Your task to perform on an android device: Show the shopping cart on bestbuy. Search for "bose soundsport free" on bestbuy, select the first entry, and add it to the cart. Image 0: 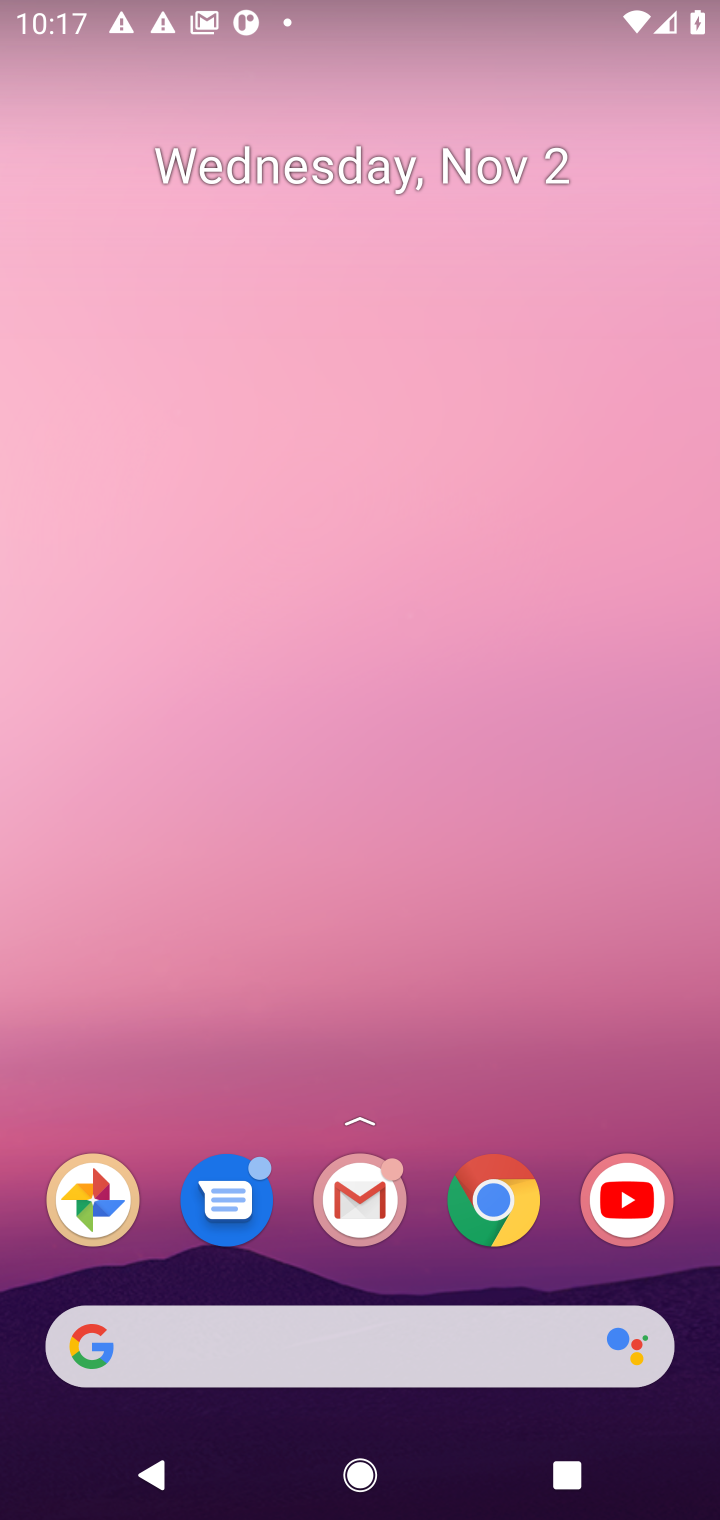
Step 0: click (463, 1193)
Your task to perform on an android device: Show the shopping cart on bestbuy. Search for "bose soundsport free" on bestbuy, select the first entry, and add it to the cart. Image 1: 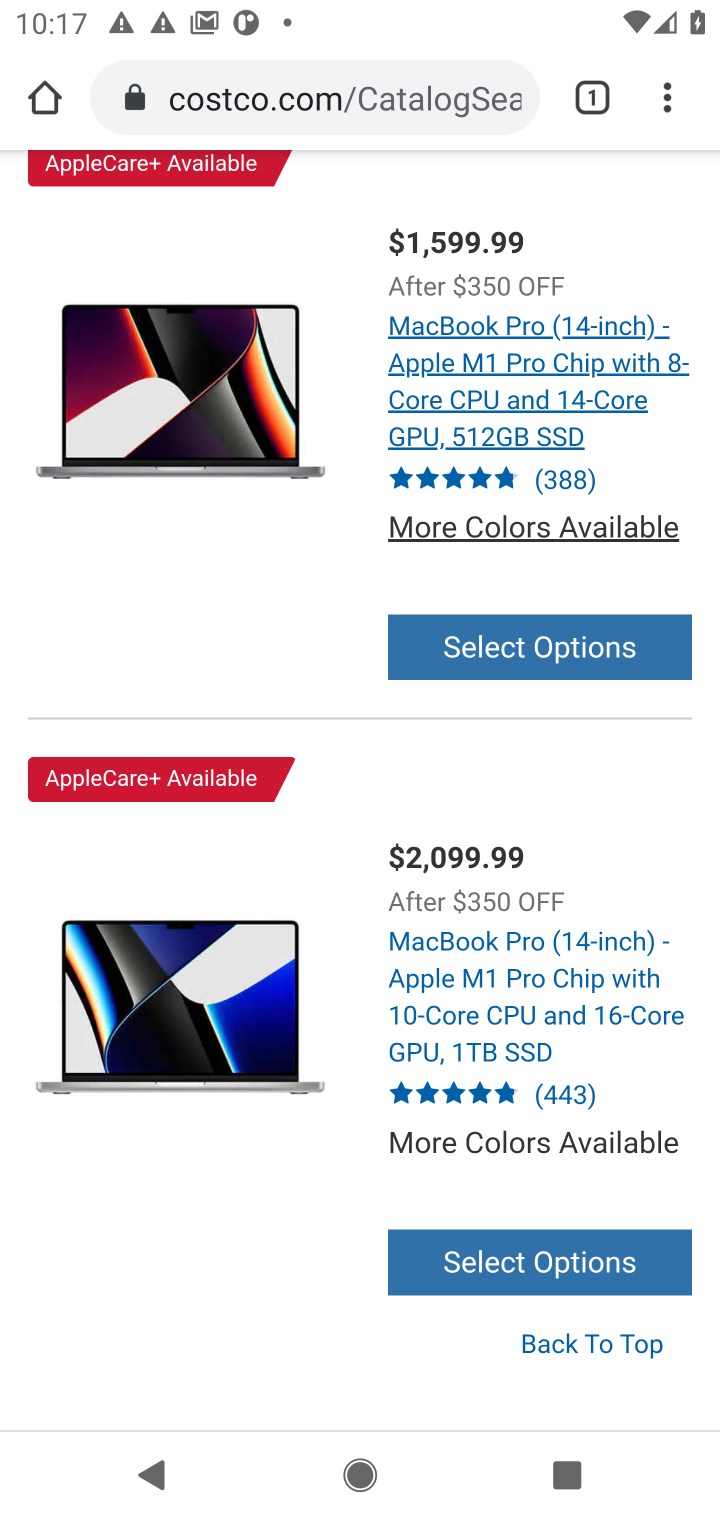
Step 1: click (398, 94)
Your task to perform on an android device: Show the shopping cart on bestbuy. Search for "bose soundsport free" on bestbuy, select the first entry, and add it to the cart. Image 2: 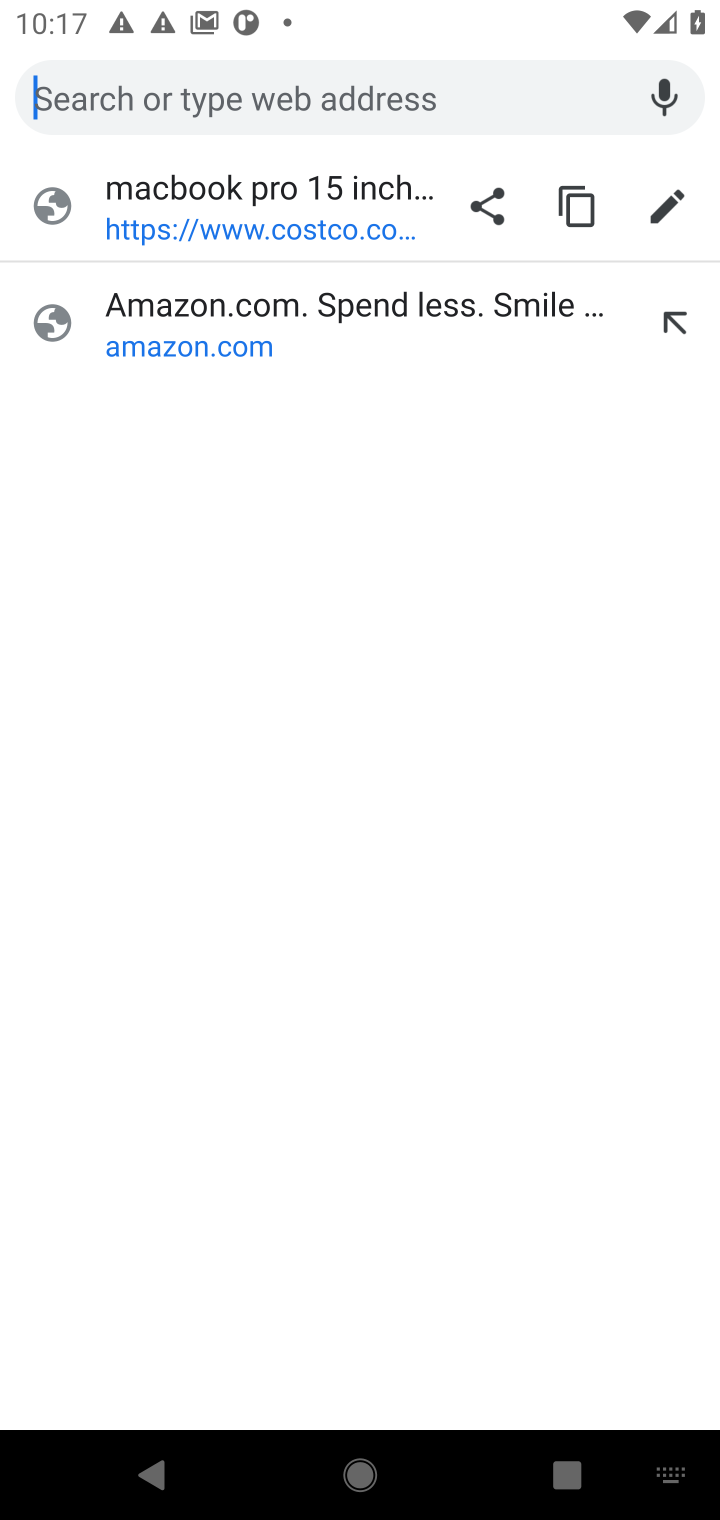
Step 2: type "bestbuy"
Your task to perform on an android device: Show the shopping cart on bestbuy. Search for "bose soundsport free" on bestbuy, select the first entry, and add it to the cart. Image 3: 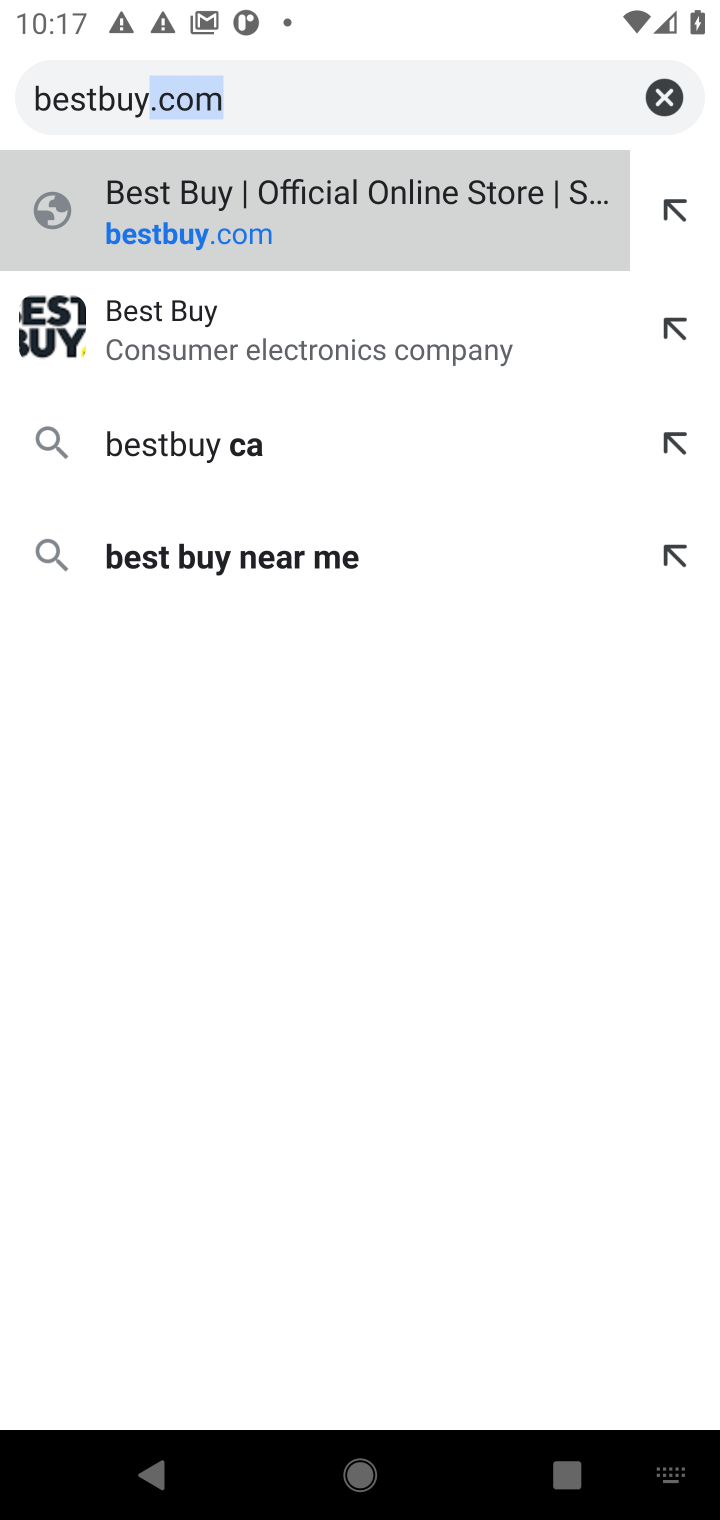
Step 3: press enter
Your task to perform on an android device: Show the shopping cart on bestbuy. Search for "bose soundsport free" on bestbuy, select the first entry, and add it to the cart. Image 4: 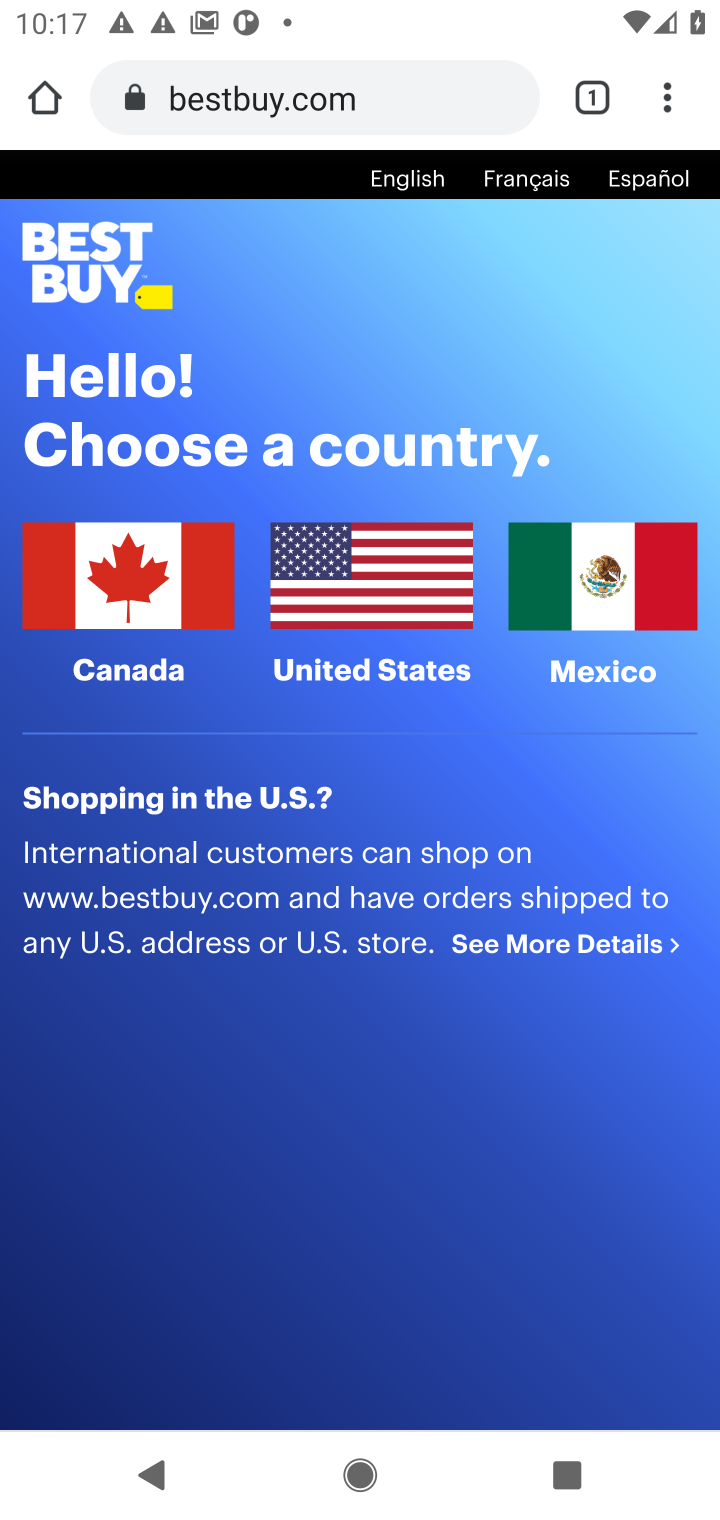
Step 4: click (408, 547)
Your task to perform on an android device: Show the shopping cart on bestbuy. Search for "bose soundsport free" on bestbuy, select the first entry, and add it to the cart. Image 5: 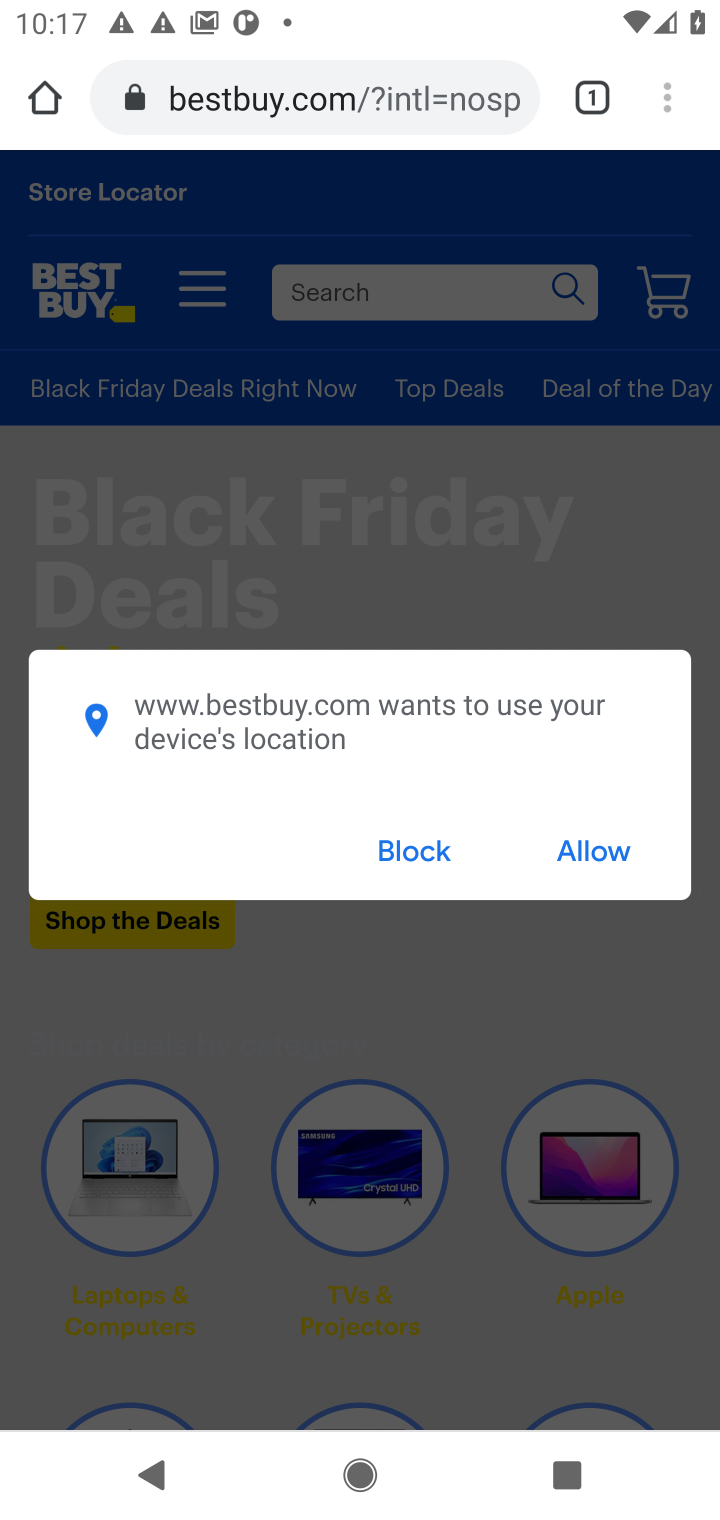
Step 5: click (449, 298)
Your task to perform on an android device: Show the shopping cart on bestbuy. Search for "bose soundsport free" on bestbuy, select the first entry, and add it to the cart. Image 6: 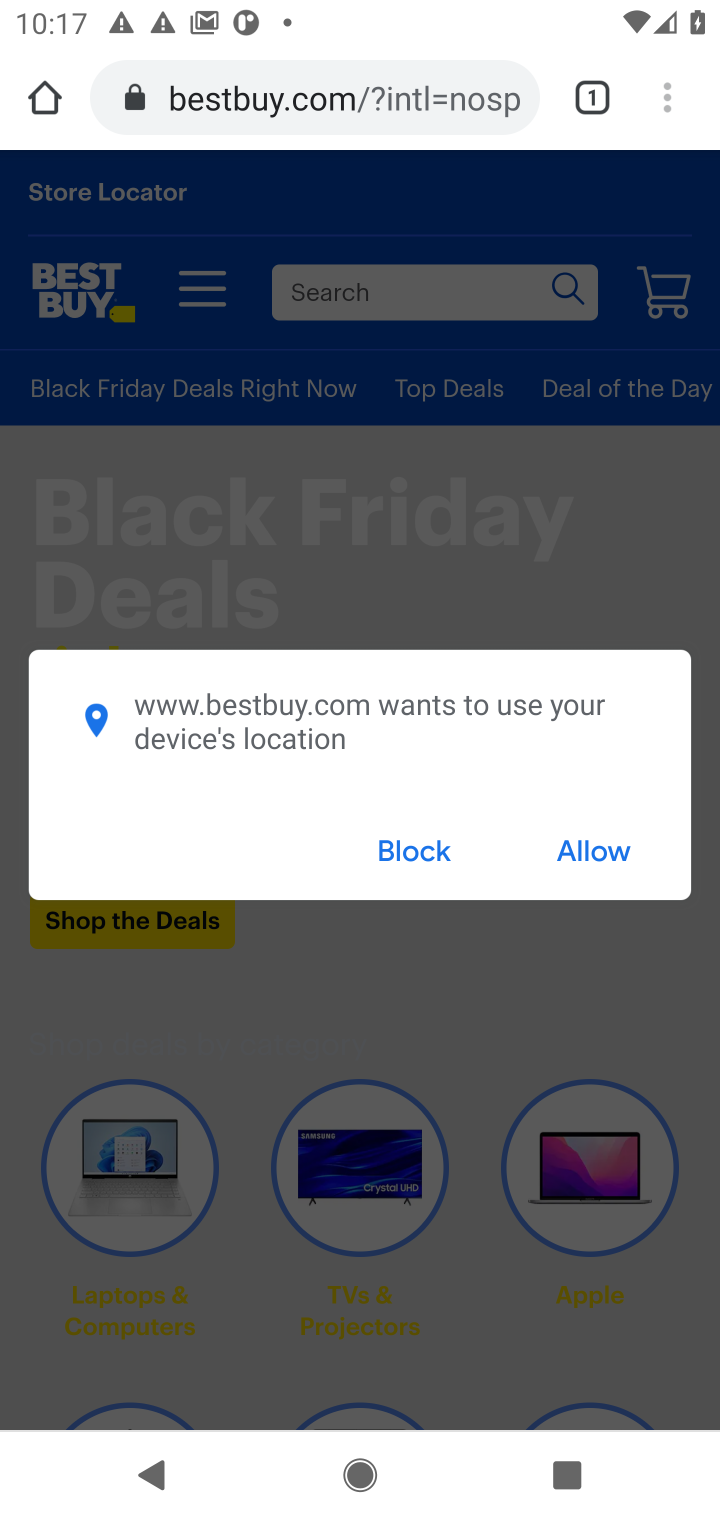
Step 6: click (446, 852)
Your task to perform on an android device: Show the shopping cart on bestbuy. Search for "bose soundsport free" on bestbuy, select the first entry, and add it to the cart. Image 7: 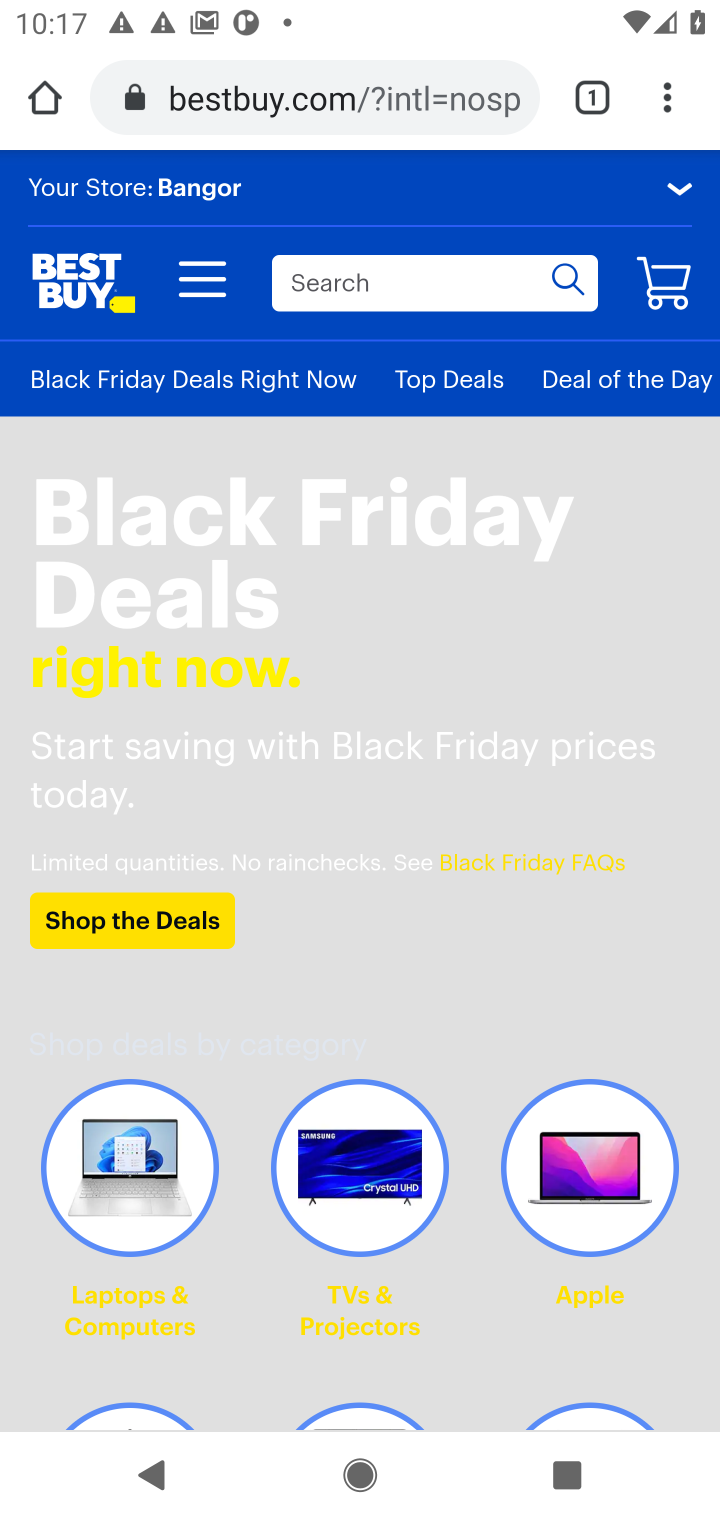
Step 7: click (477, 282)
Your task to perform on an android device: Show the shopping cart on bestbuy. Search for "bose soundsport free" on bestbuy, select the first entry, and add it to the cart. Image 8: 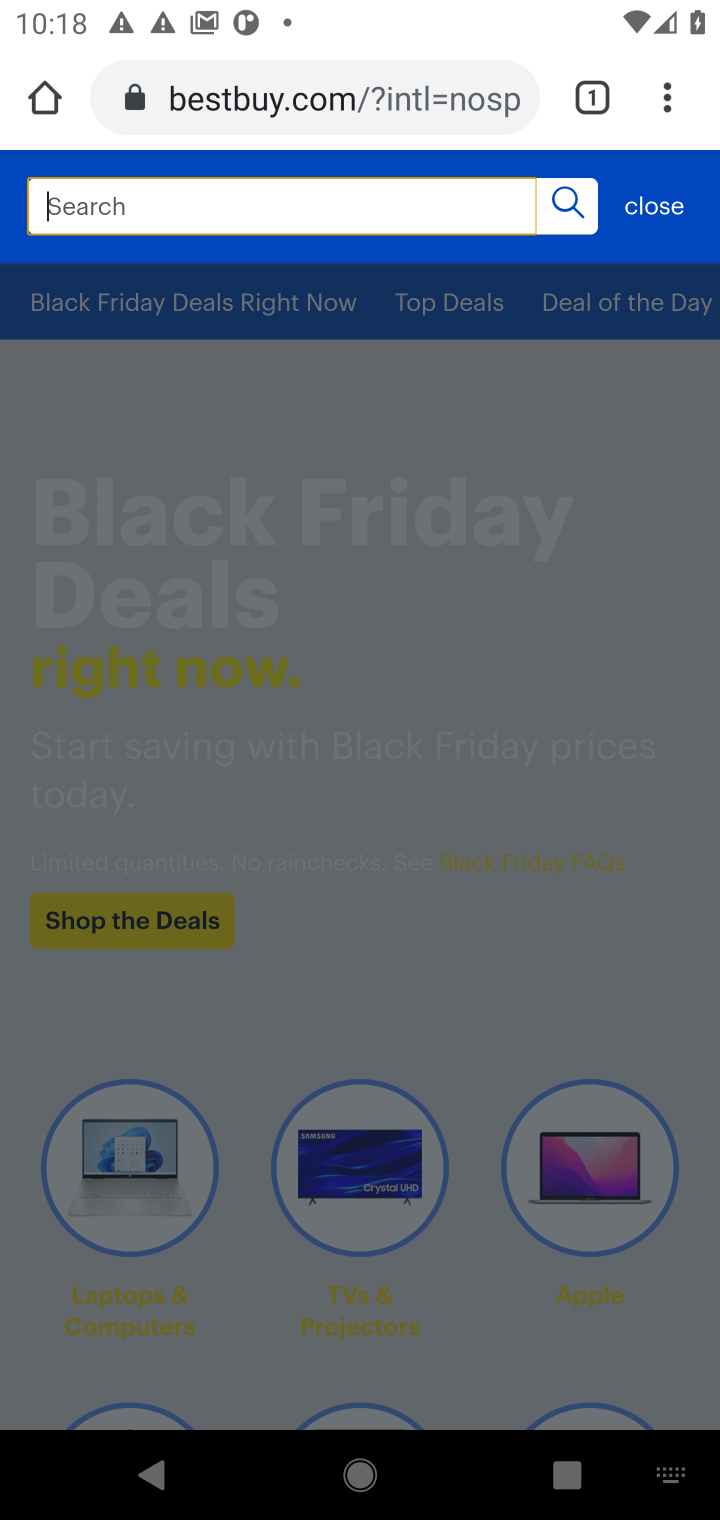
Step 8: type "bose soundsport free"
Your task to perform on an android device: Show the shopping cart on bestbuy. Search for "bose soundsport free" on bestbuy, select the first entry, and add it to the cart. Image 9: 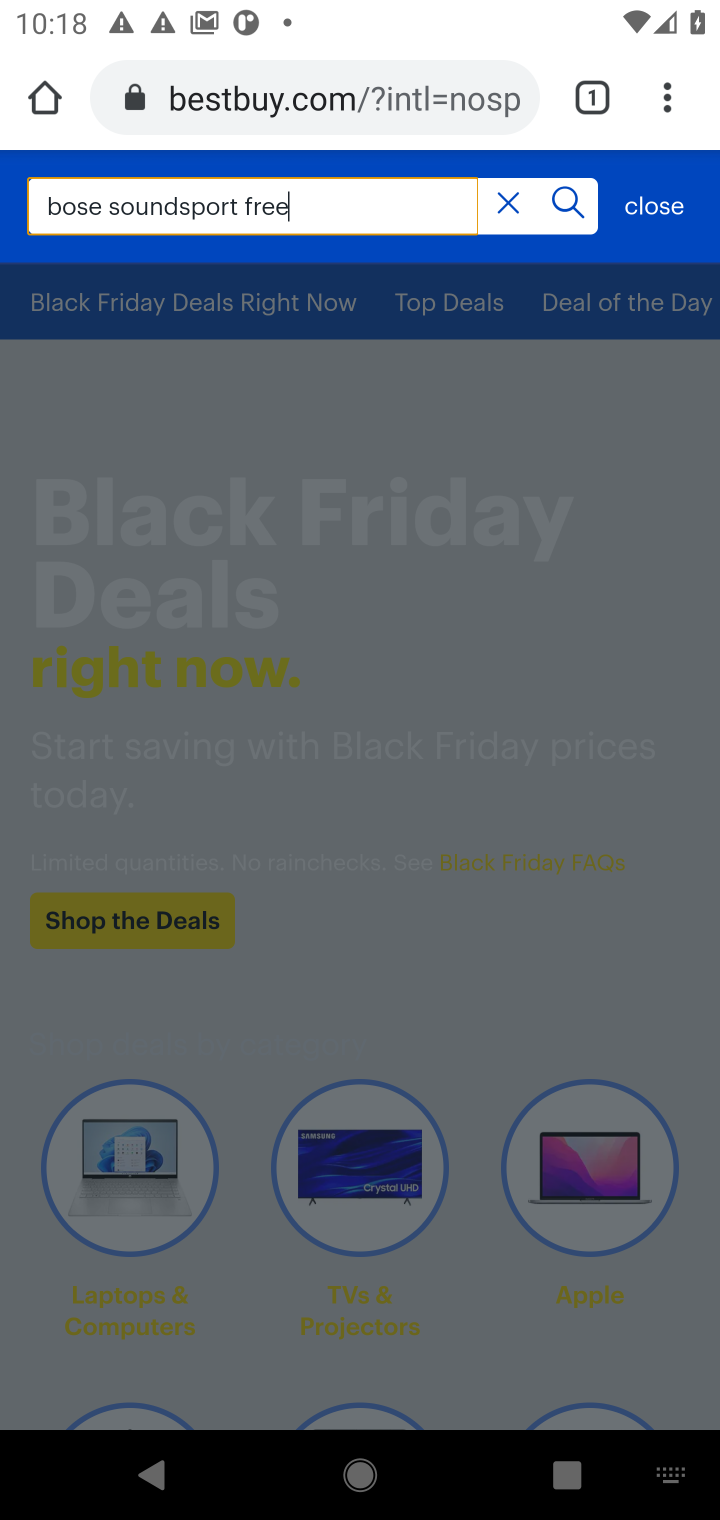
Step 9: press enter
Your task to perform on an android device: Show the shopping cart on bestbuy. Search for "bose soundsport free" on bestbuy, select the first entry, and add it to the cart. Image 10: 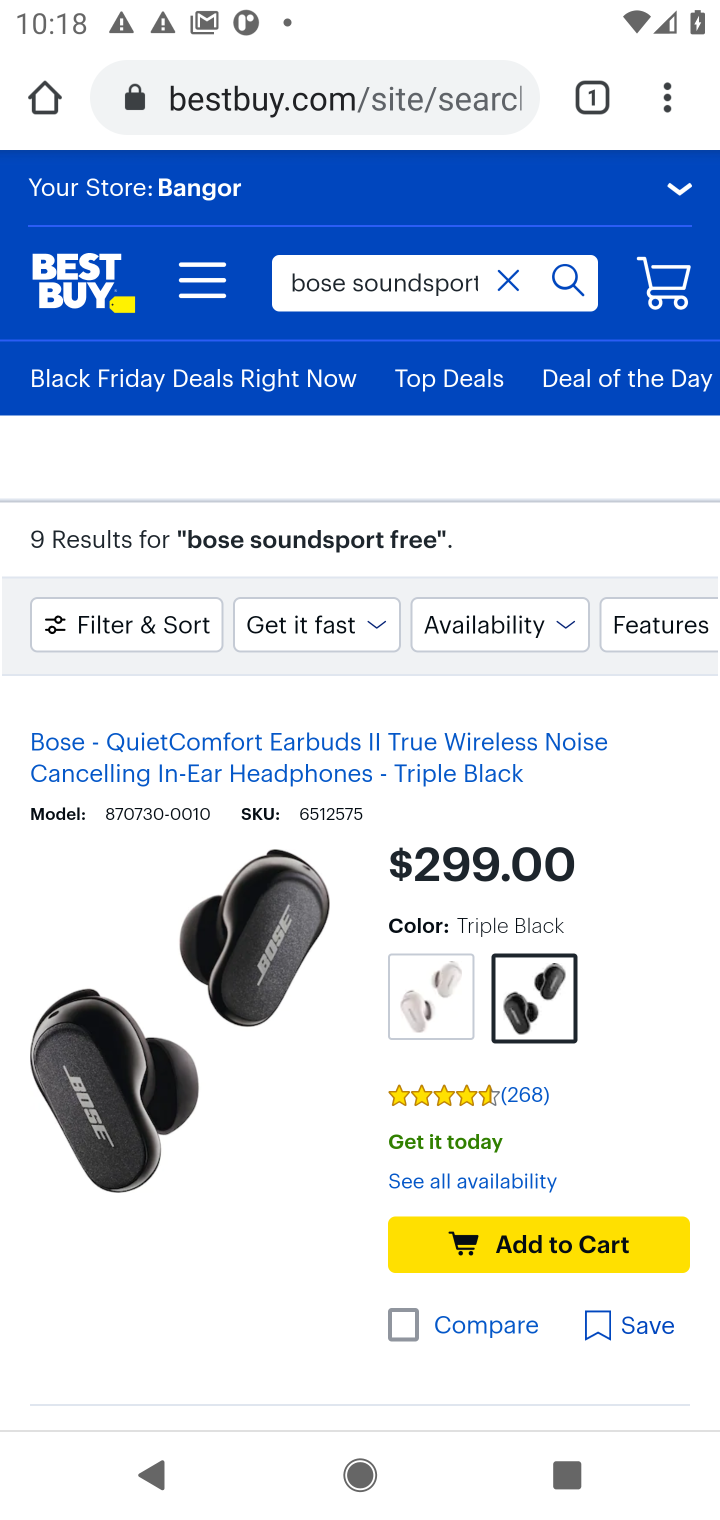
Step 10: drag from (224, 1241) to (347, 808)
Your task to perform on an android device: Show the shopping cart on bestbuy. Search for "bose soundsport free" on bestbuy, select the first entry, and add it to the cart. Image 11: 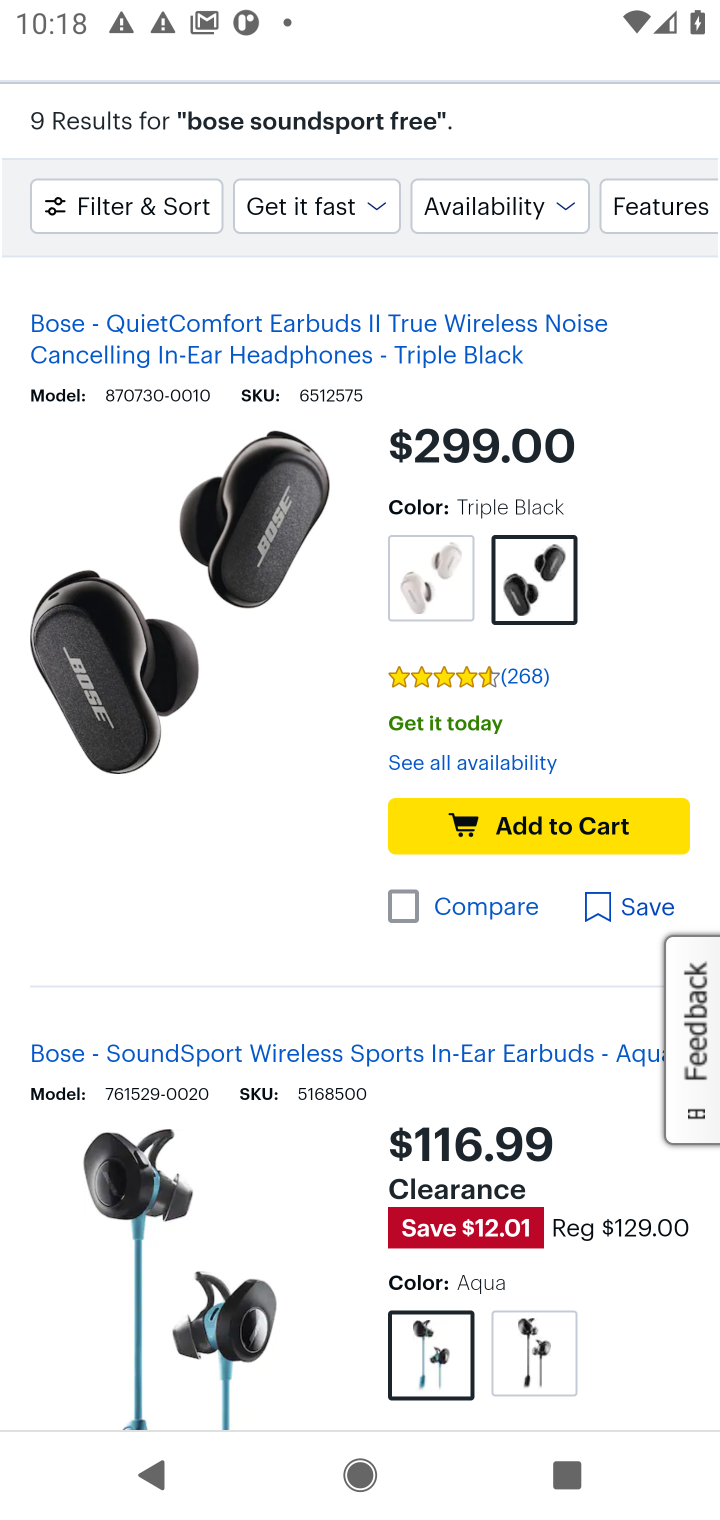
Step 11: click (232, 1050)
Your task to perform on an android device: Show the shopping cart on bestbuy. Search for "bose soundsport free" on bestbuy, select the first entry, and add it to the cart. Image 12: 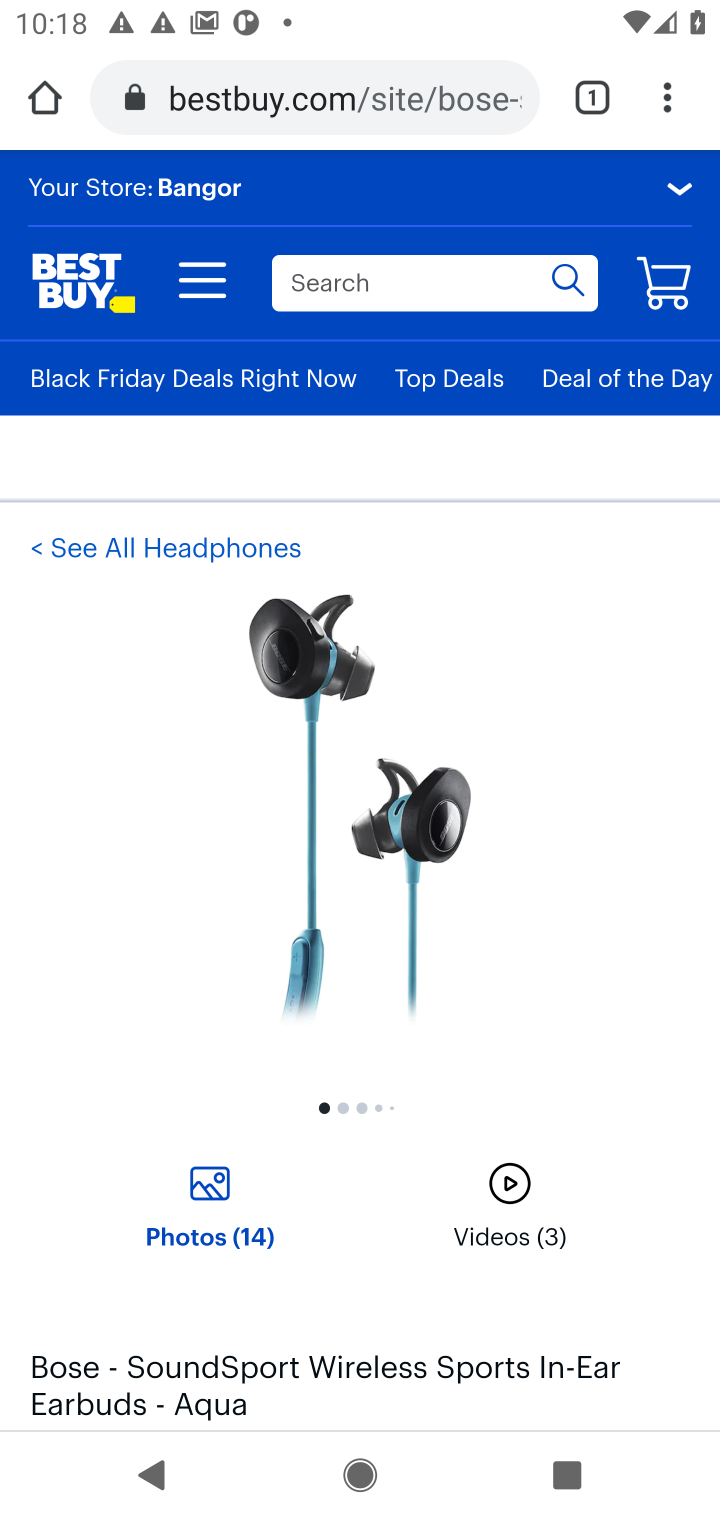
Step 12: drag from (364, 1164) to (424, 625)
Your task to perform on an android device: Show the shopping cart on bestbuy. Search for "bose soundsport free" on bestbuy, select the first entry, and add it to the cart. Image 13: 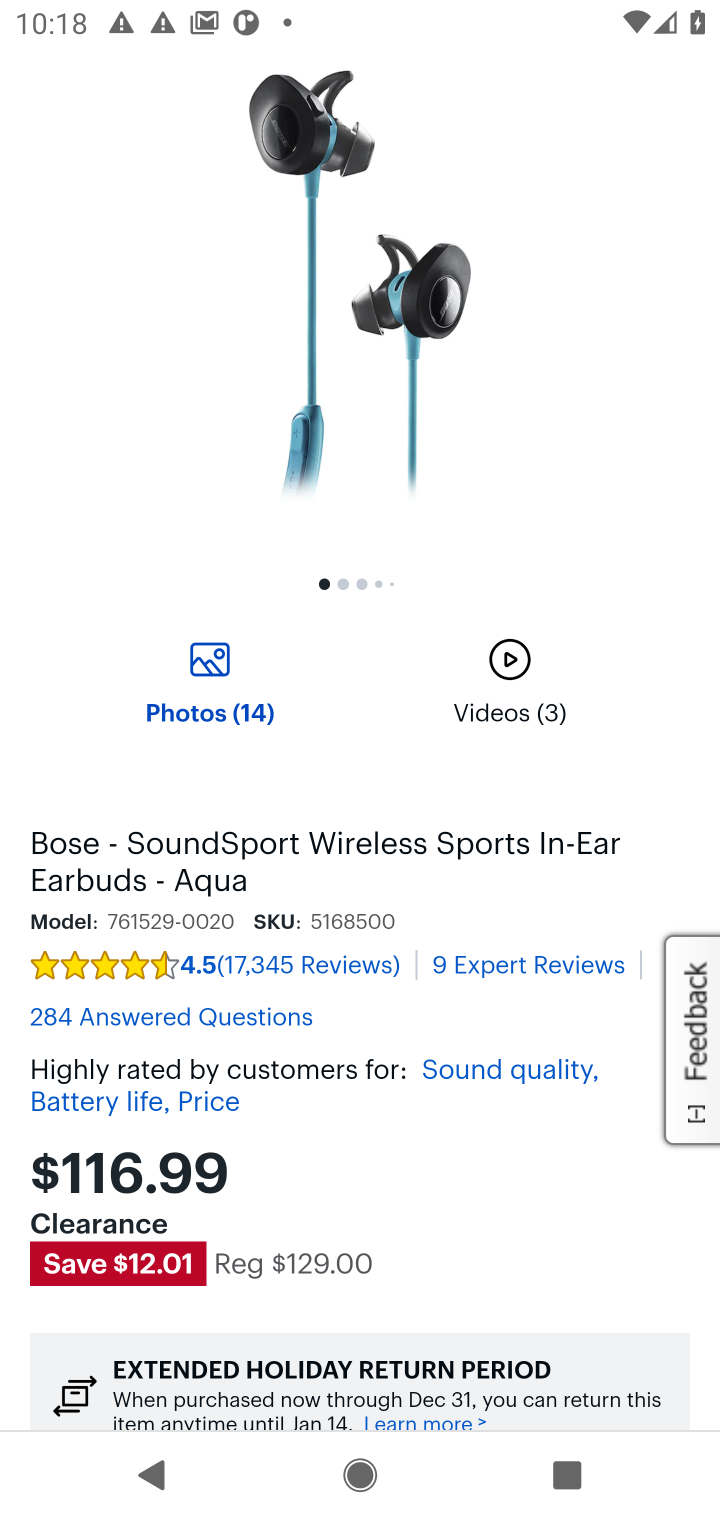
Step 13: drag from (365, 1168) to (371, 592)
Your task to perform on an android device: Show the shopping cart on bestbuy. Search for "bose soundsport free" on bestbuy, select the first entry, and add it to the cart. Image 14: 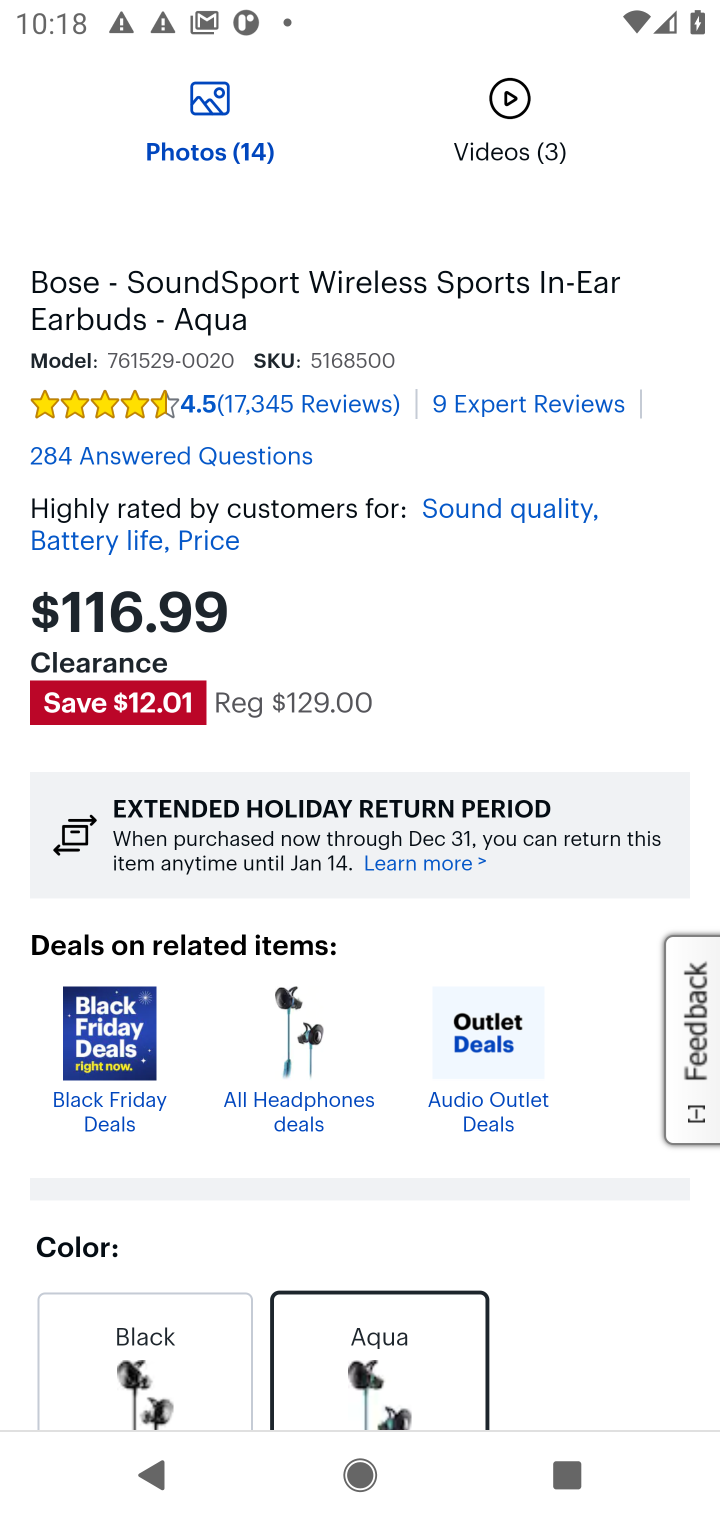
Step 14: drag from (520, 1180) to (477, 757)
Your task to perform on an android device: Show the shopping cart on bestbuy. Search for "bose soundsport free" on bestbuy, select the first entry, and add it to the cart. Image 15: 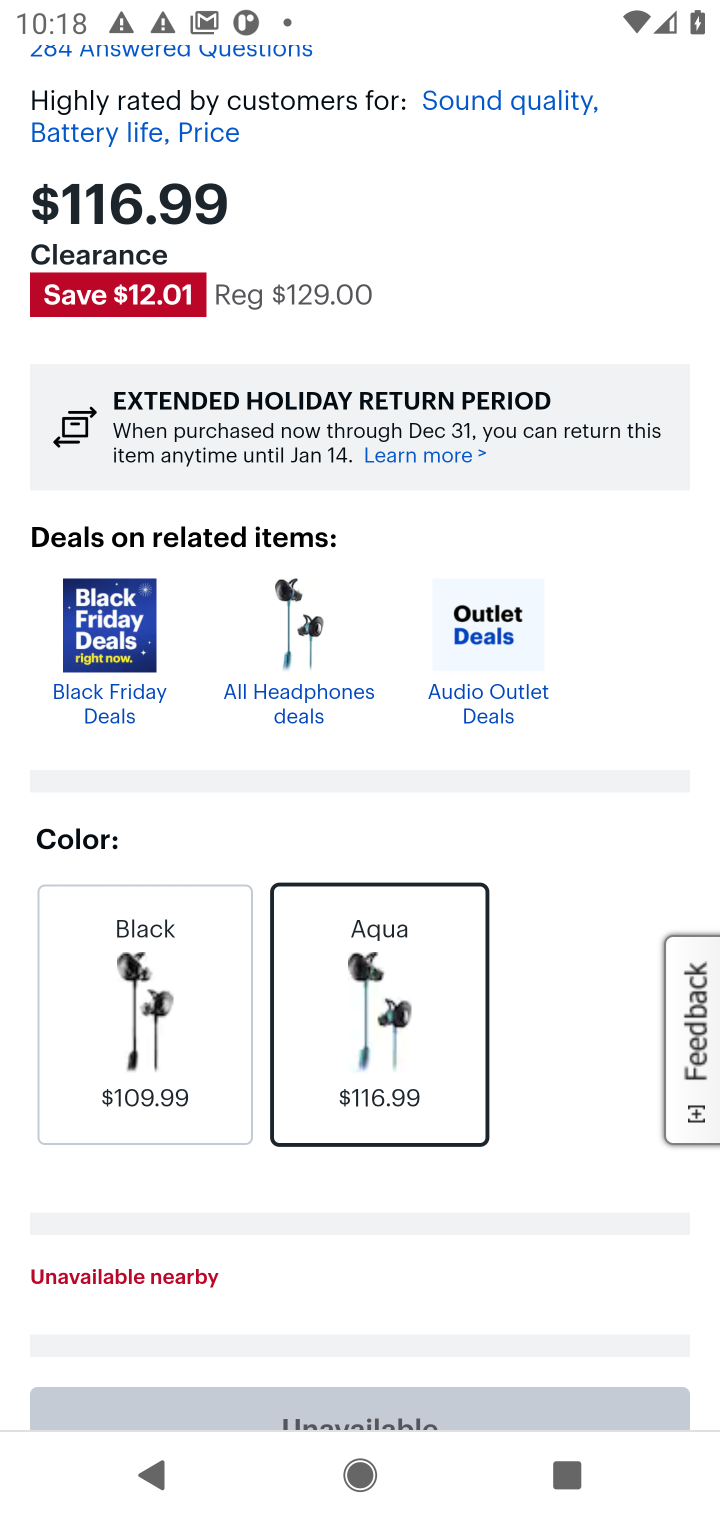
Step 15: drag from (591, 995) to (539, 697)
Your task to perform on an android device: Show the shopping cart on bestbuy. Search for "bose soundsport free" on bestbuy, select the first entry, and add it to the cart. Image 16: 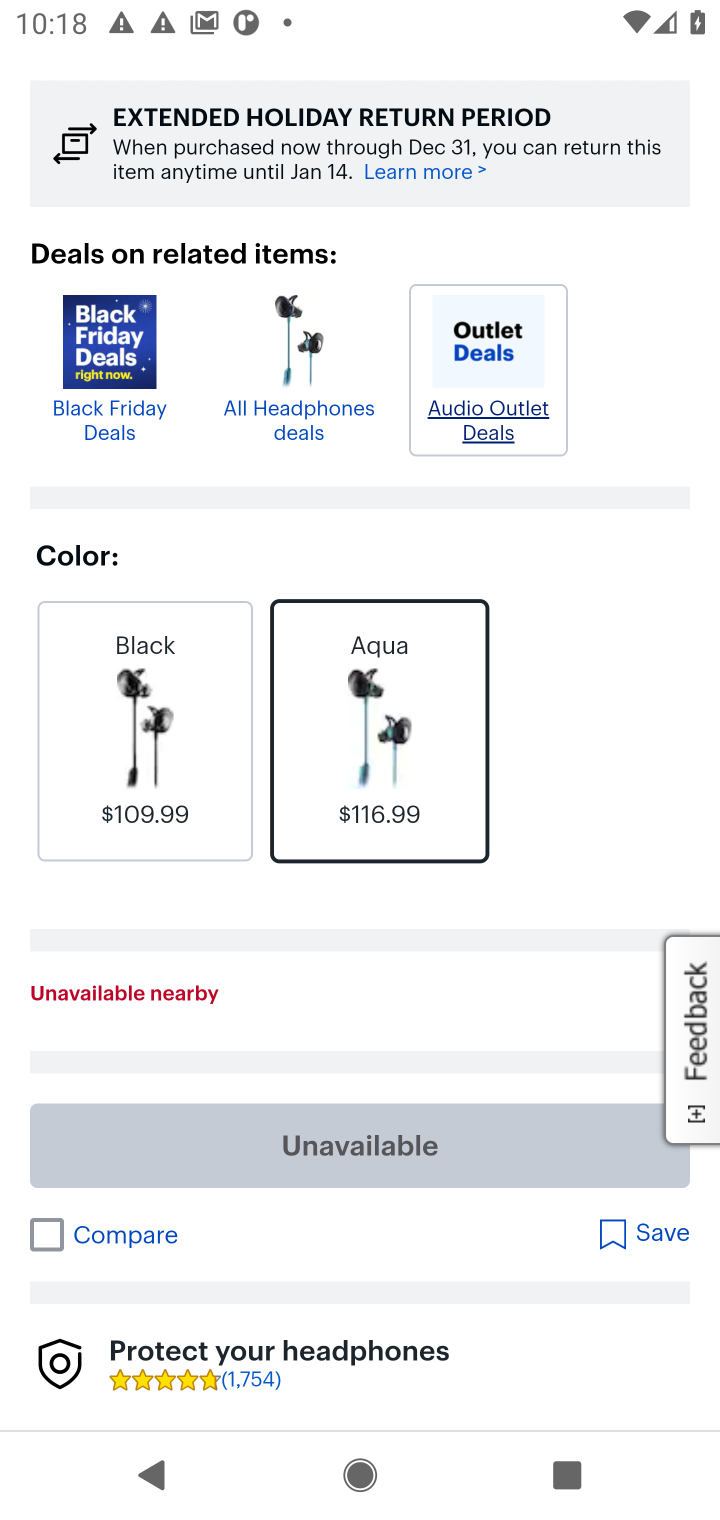
Step 16: press back button
Your task to perform on an android device: Show the shopping cart on bestbuy. Search for "bose soundsport free" on bestbuy, select the first entry, and add it to the cart. Image 17: 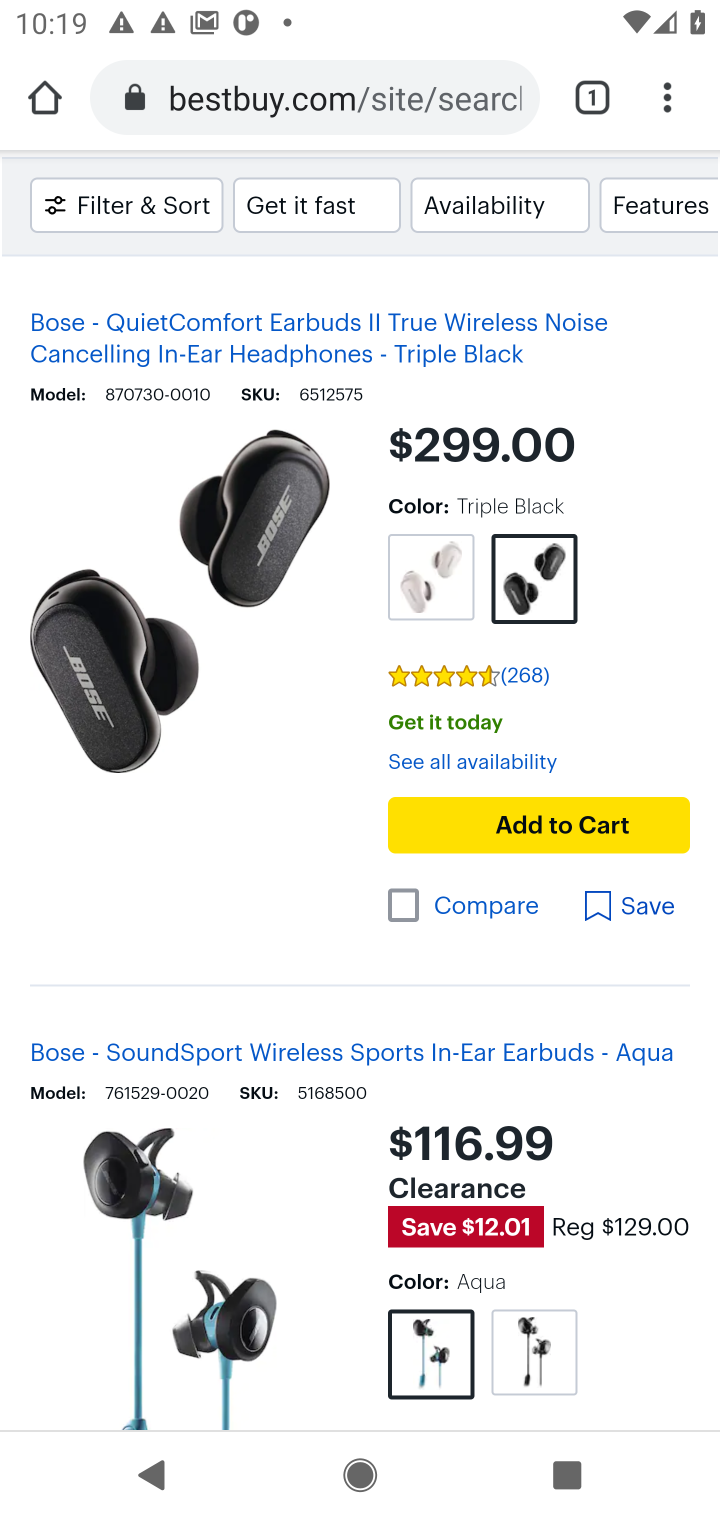
Step 17: drag from (247, 1172) to (381, 427)
Your task to perform on an android device: Show the shopping cart on bestbuy. Search for "bose soundsport free" on bestbuy, select the first entry, and add it to the cart. Image 18: 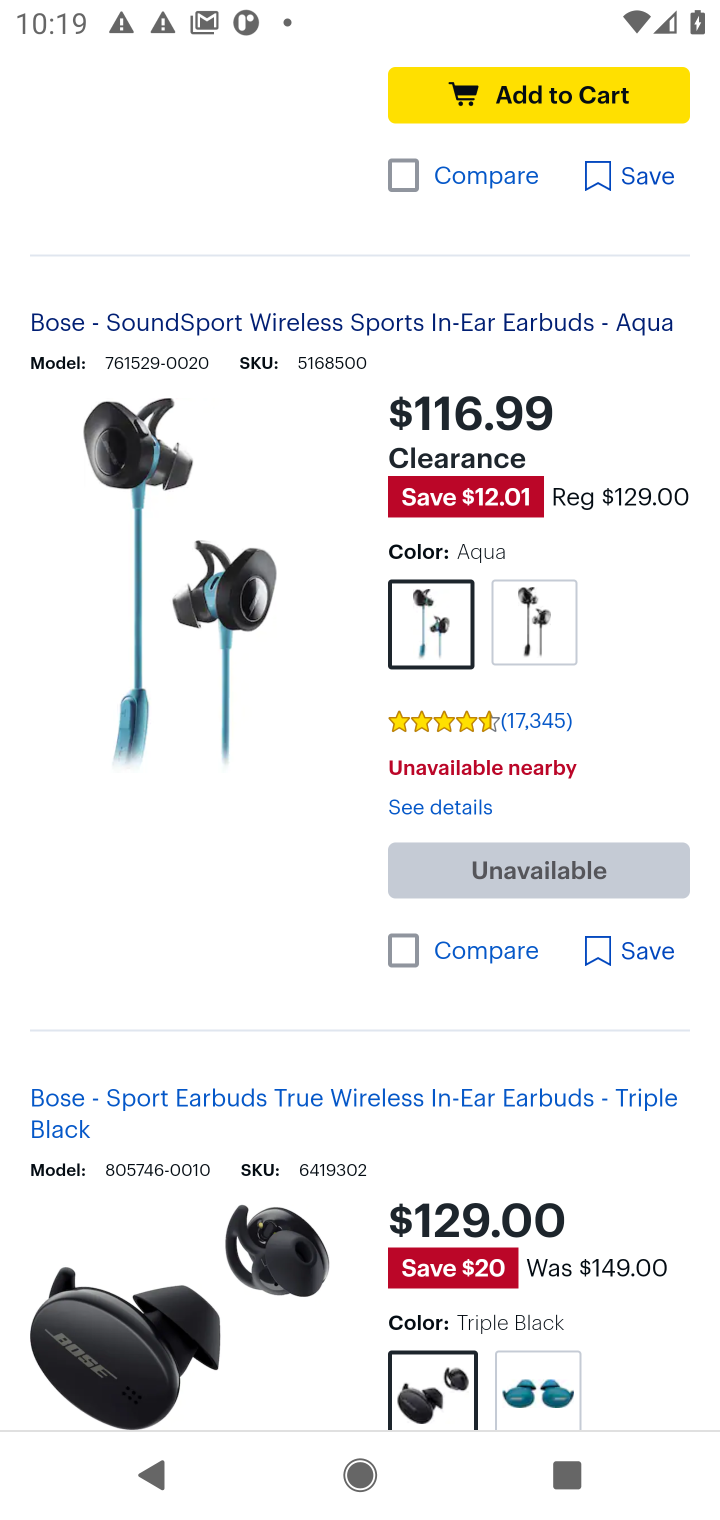
Step 18: drag from (225, 1247) to (356, 594)
Your task to perform on an android device: Show the shopping cart on bestbuy. Search for "bose soundsport free" on bestbuy, select the first entry, and add it to the cart. Image 19: 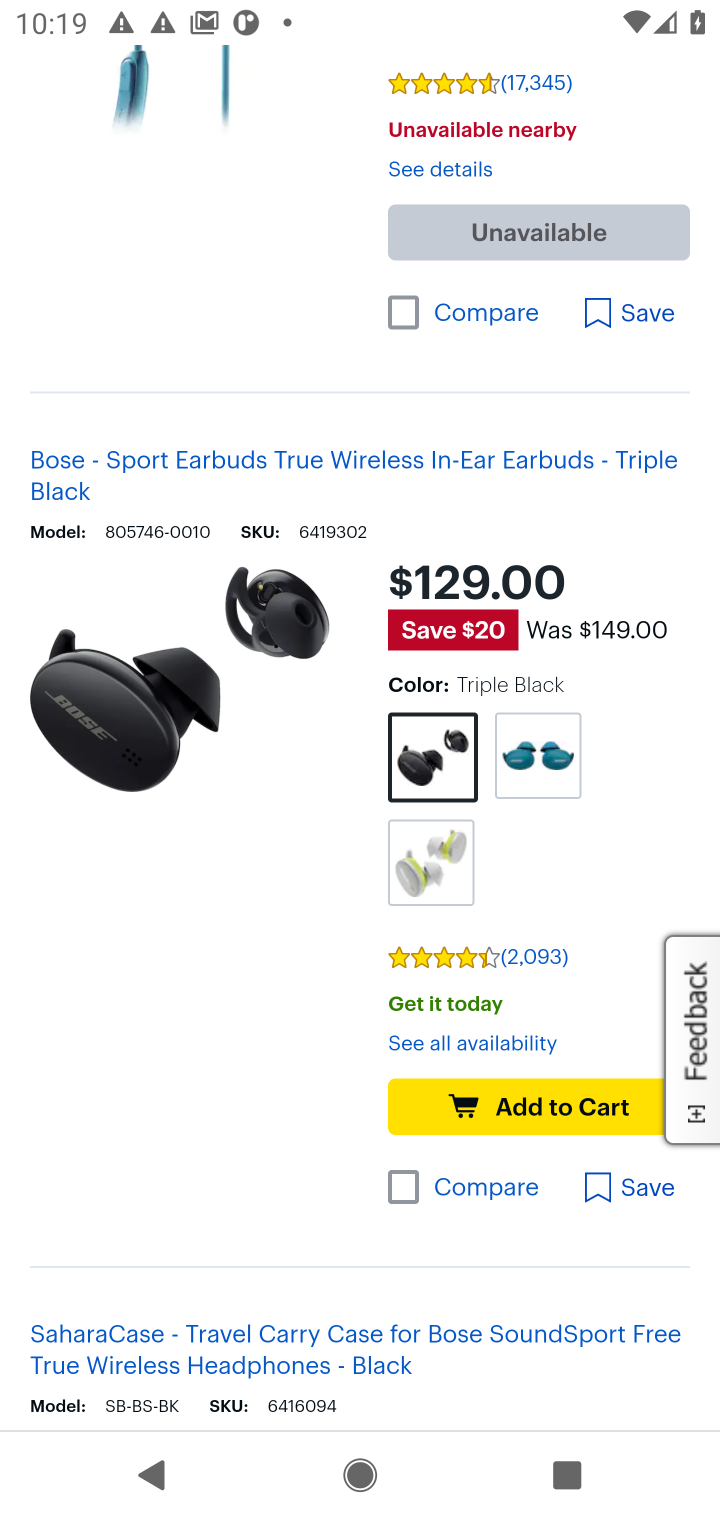
Step 19: click (209, 1351)
Your task to perform on an android device: Show the shopping cart on bestbuy. Search for "bose soundsport free" on bestbuy, select the first entry, and add it to the cart. Image 20: 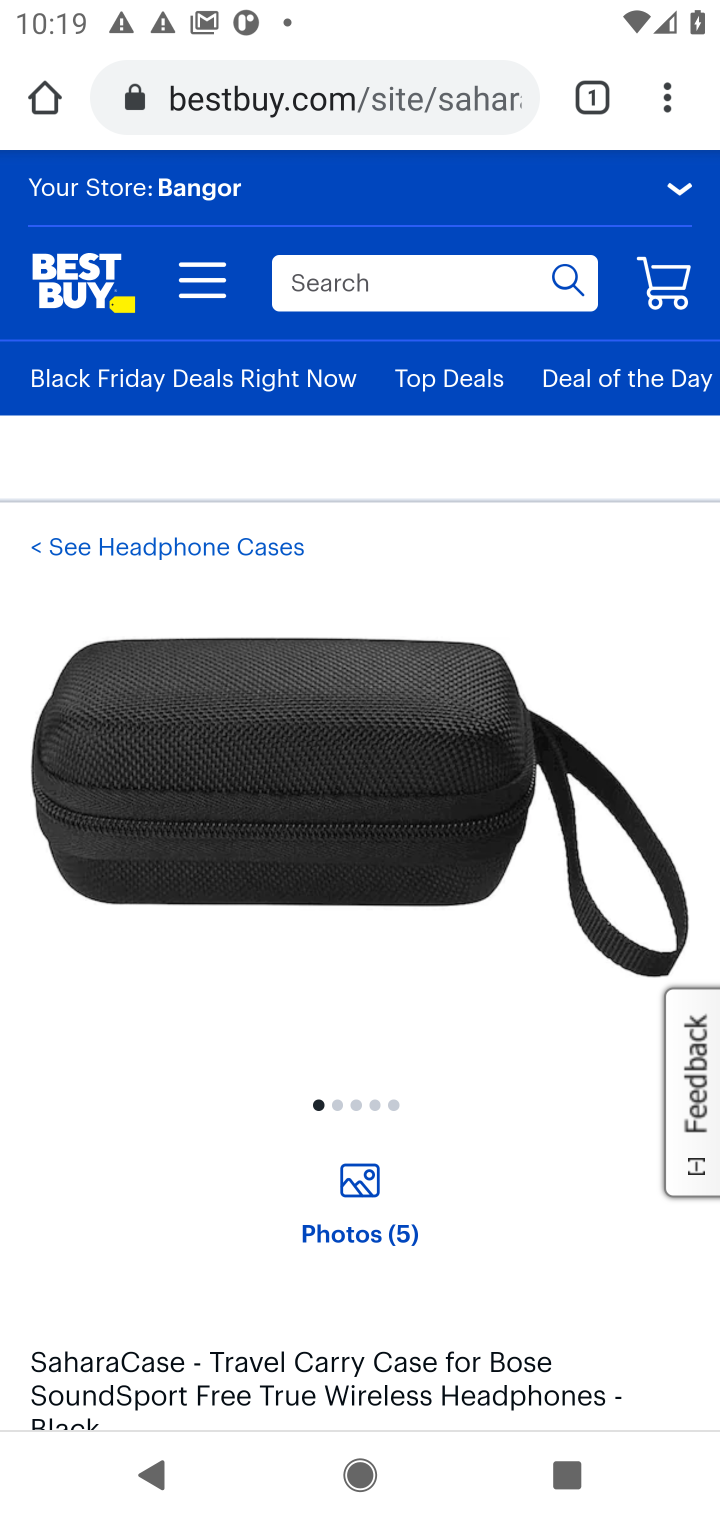
Step 20: drag from (381, 894) to (458, 655)
Your task to perform on an android device: Show the shopping cart on bestbuy. Search for "bose soundsport free" on bestbuy, select the first entry, and add it to the cart. Image 21: 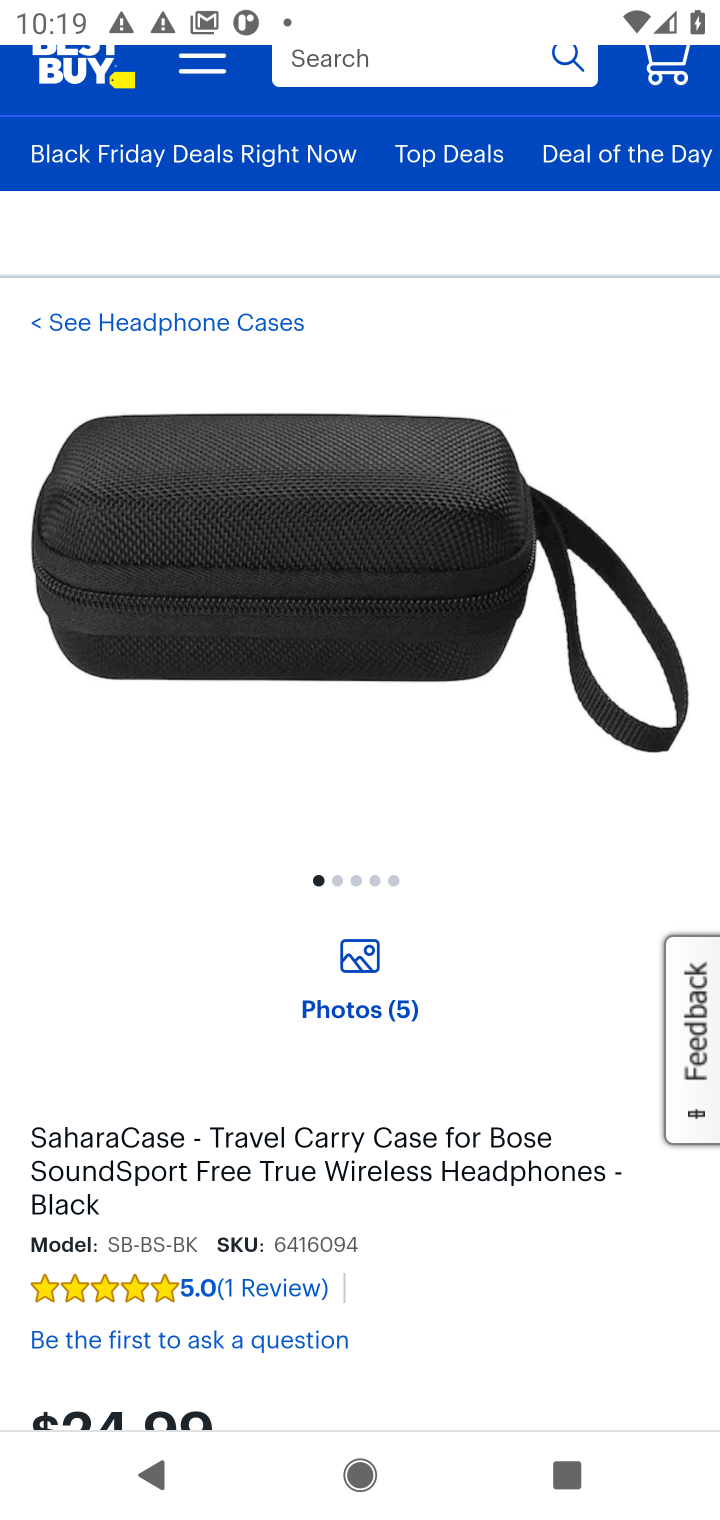
Step 21: drag from (423, 839) to (453, 693)
Your task to perform on an android device: Show the shopping cart on bestbuy. Search for "bose soundsport free" on bestbuy, select the first entry, and add it to the cart. Image 22: 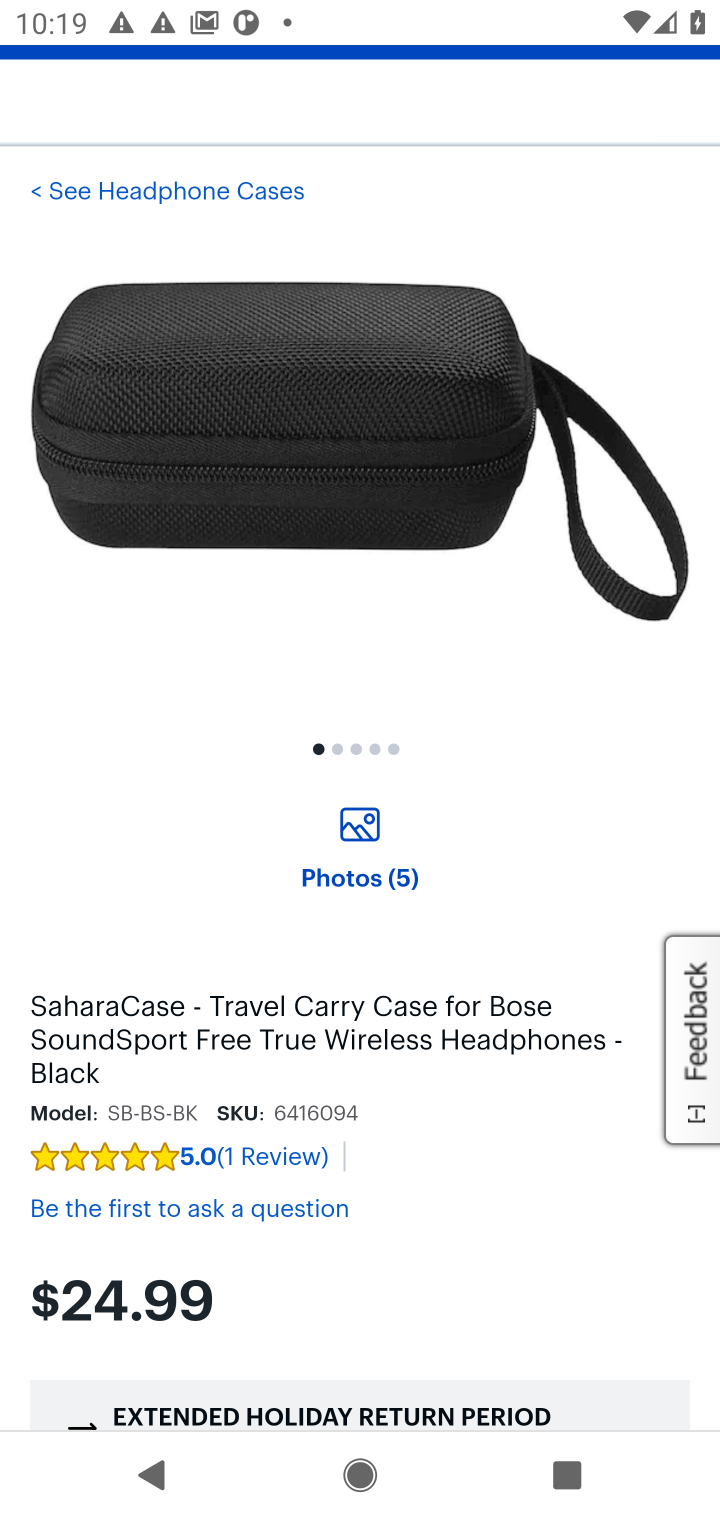
Step 22: drag from (525, 1240) to (628, 444)
Your task to perform on an android device: Show the shopping cart on bestbuy. Search for "bose soundsport free" on bestbuy, select the first entry, and add it to the cart. Image 23: 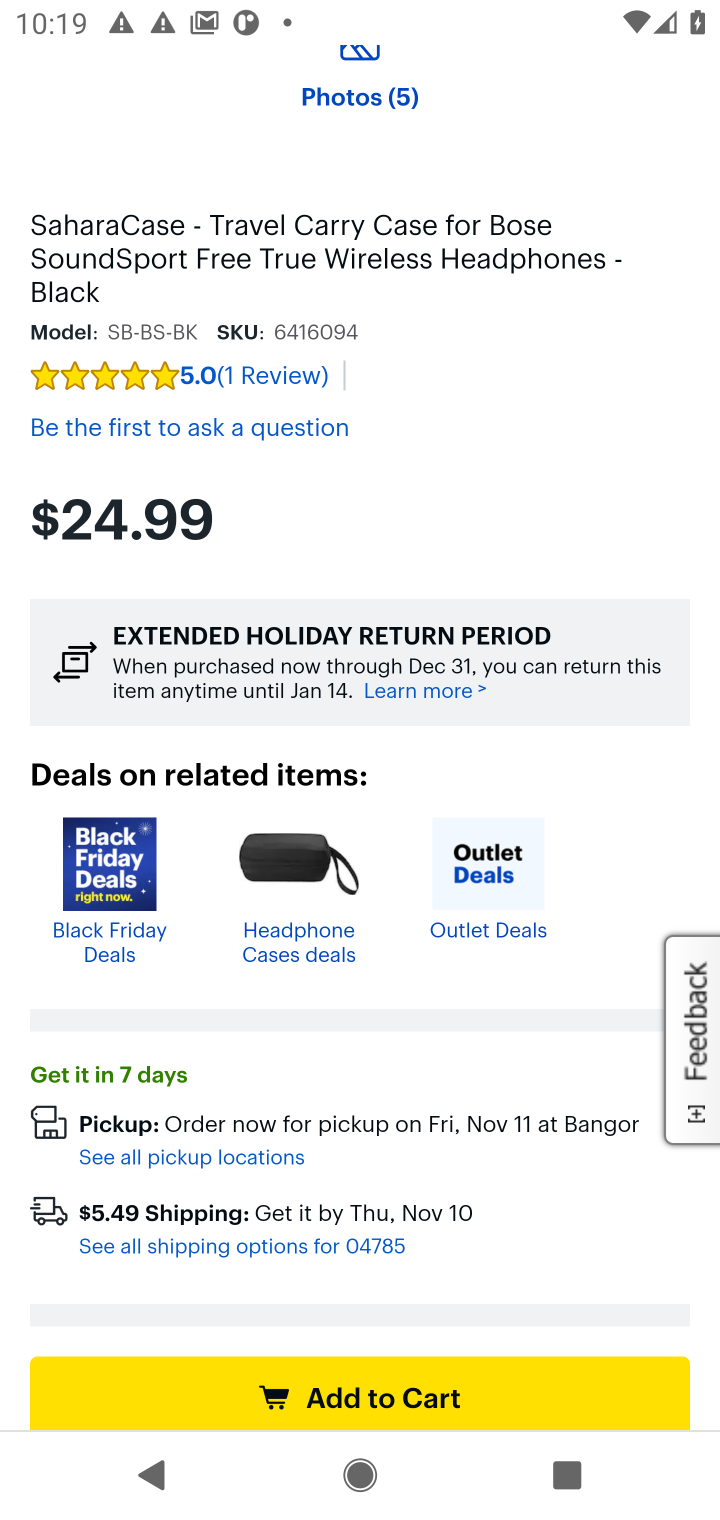
Step 23: click (422, 1393)
Your task to perform on an android device: Show the shopping cart on bestbuy. Search for "bose soundsport free" on bestbuy, select the first entry, and add it to the cart. Image 24: 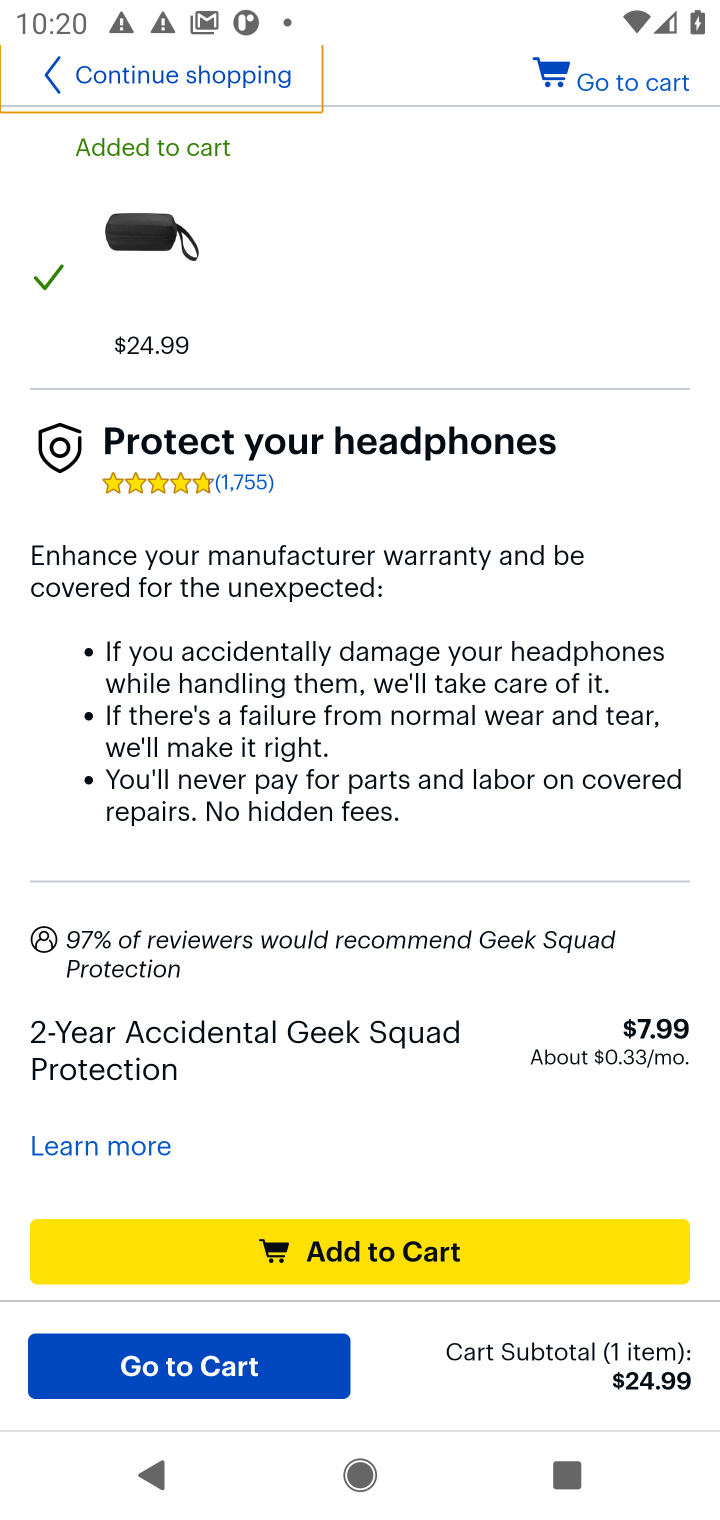
Step 24: task complete